Your task to perform on an android device: Do I have any events tomorrow? Image 0: 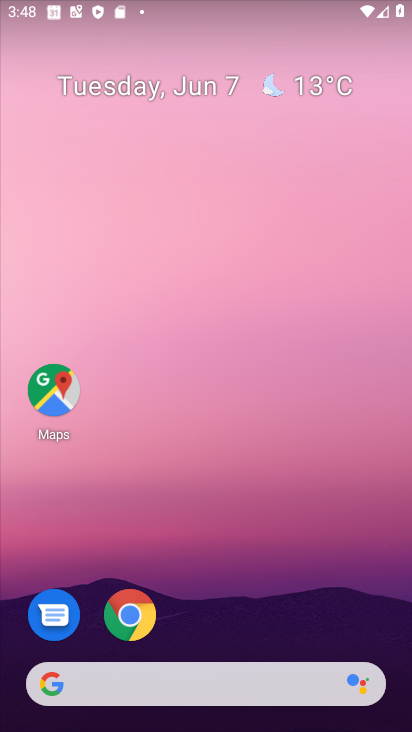
Step 0: drag from (237, 643) to (234, 4)
Your task to perform on an android device: Do I have any events tomorrow? Image 1: 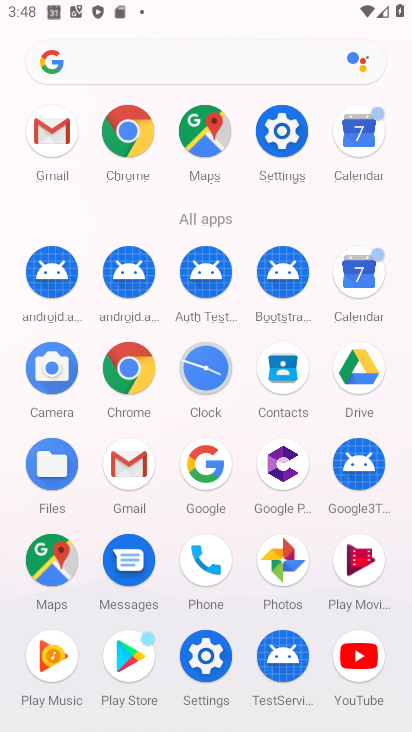
Step 1: click (373, 271)
Your task to perform on an android device: Do I have any events tomorrow? Image 2: 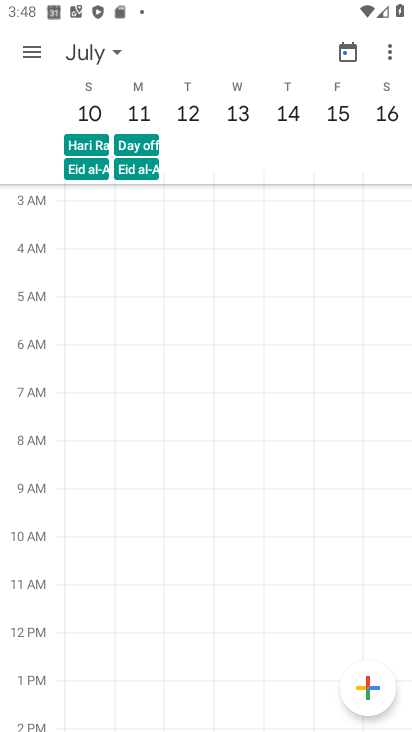
Step 2: click (22, 57)
Your task to perform on an android device: Do I have any events tomorrow? Image 3: 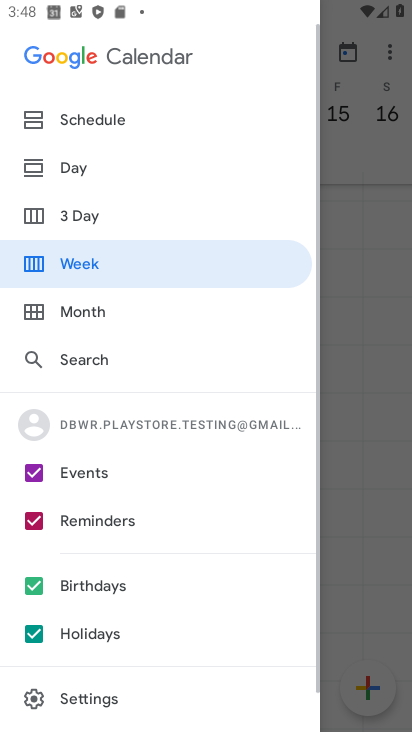
Step 3: click (122, 211)
Your task to perform on an android device: Do I have any events tomorrow? Image 4: 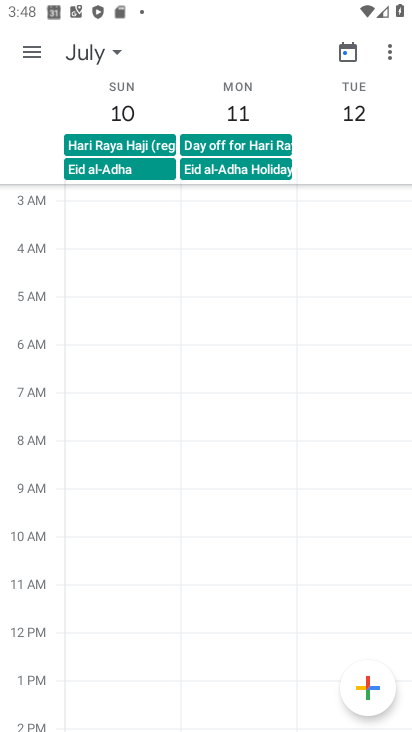
Step 4: click (24, 48)
Your task to perform on an android device: Do I have any events tomorrow? Image 5: 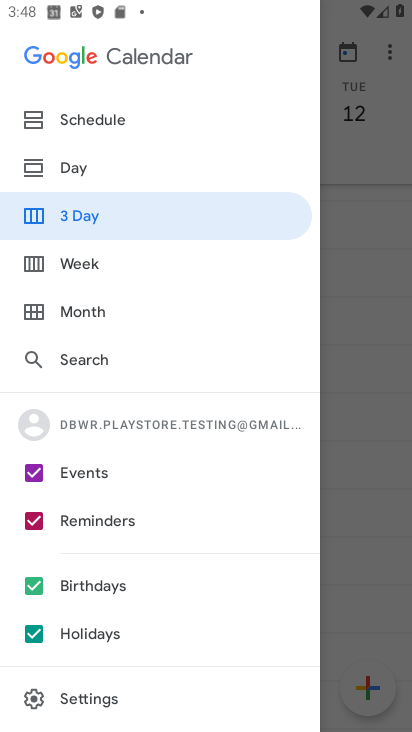
Step 5: click (94, 587)
Your task to perform on an android device: Do I have any events tomorrow? Image 6: 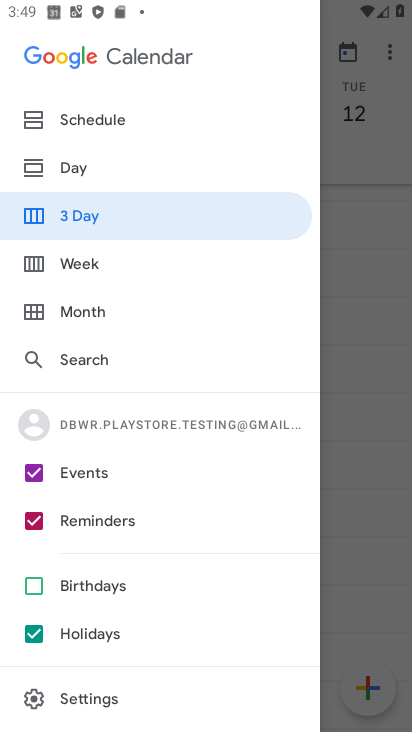
Step 6: click (69, 651)
Your task to perform on an android device: Do I have any events tomorrow? Image 7: 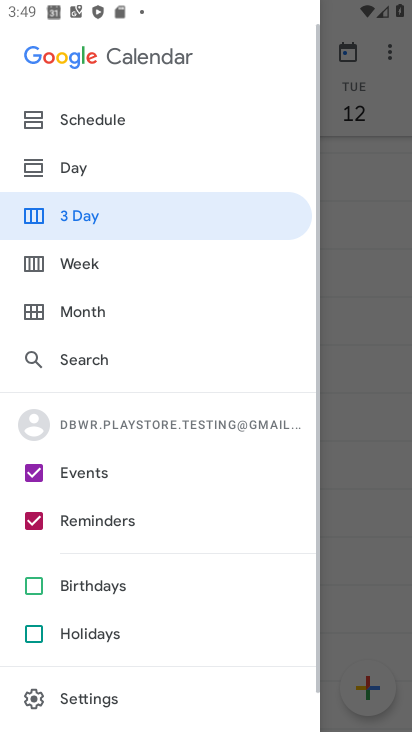
Step 7: click (73, 636)
Your task to perform on an android device: Do I have any events tomorrow? Image 8: 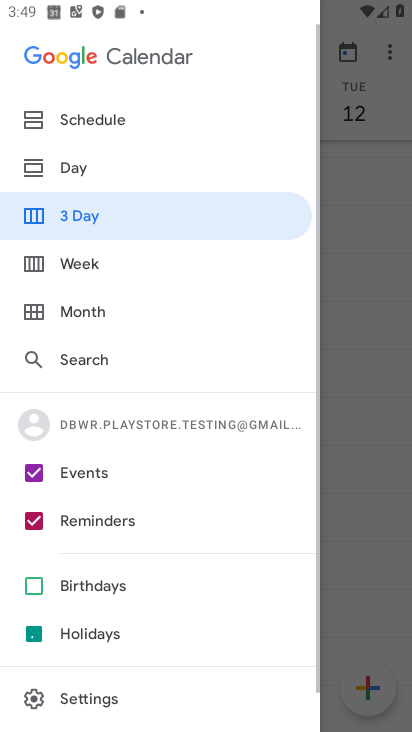
Step 8: click (74, 638)
Your task to perform on an android device: Do I have any events tomorrow? Image 9: 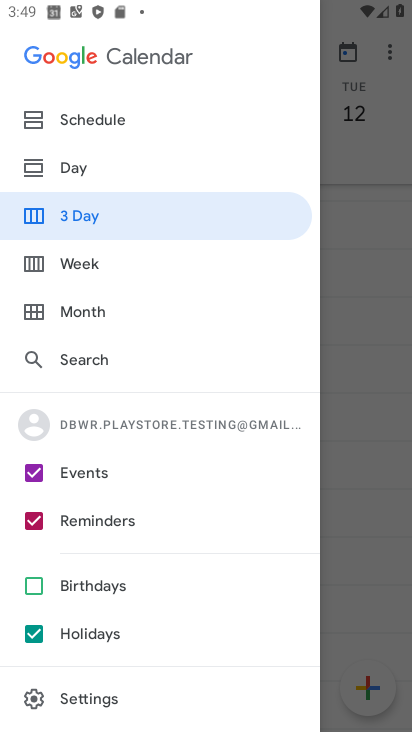
Step 9: click (55, 627)
Your task to perform on an android device: Do I have any events tomorrow? Image 10: 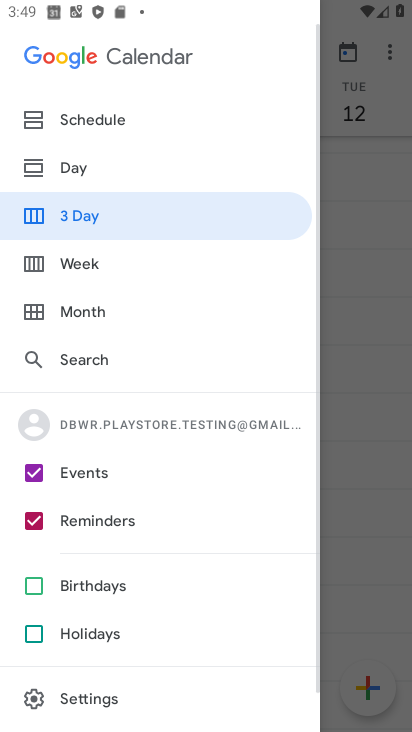
Step 10: click (361, 320)
Your task to perform on an android device: Do I have any events tomorrow? Image 11: 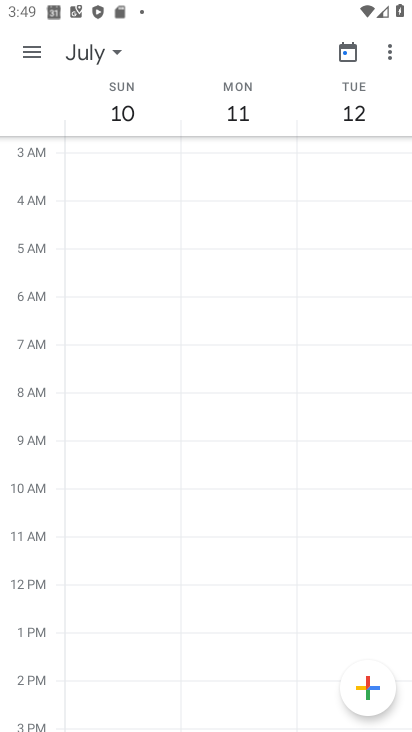
Step 11: task complete